Your task to perform on an android device: open a new tab in the chrome app Image 0: 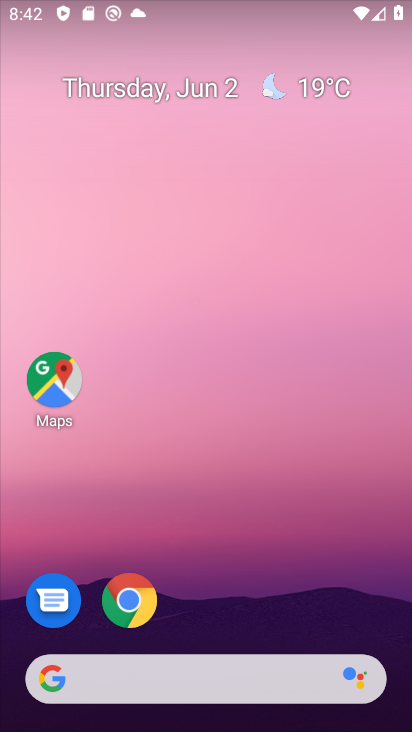
Step 0: click (111, 611)
Your task to perform on an android device: open a new tab in the chrome app Image 1: 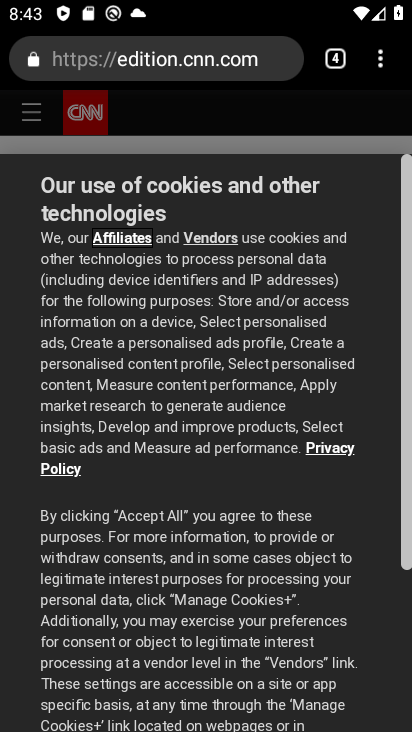
Step 1: click (335, 55)
Your task to perform on an android device: open a new tab in the chrome app Image 2: 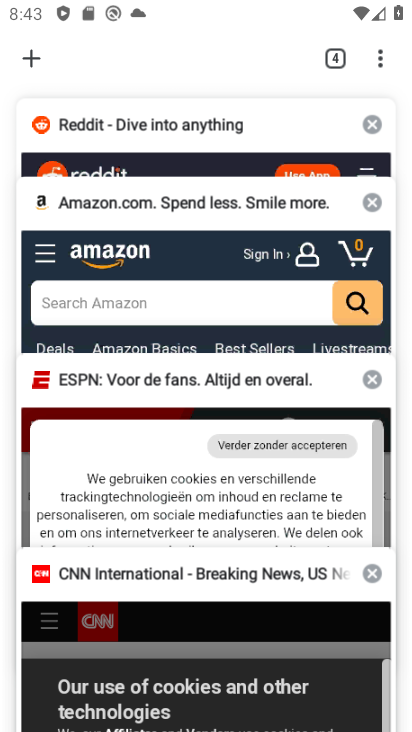
Step 2: click (29, 50)
Your task to perform on an android device: open a new tab in the chrome app Image 3: 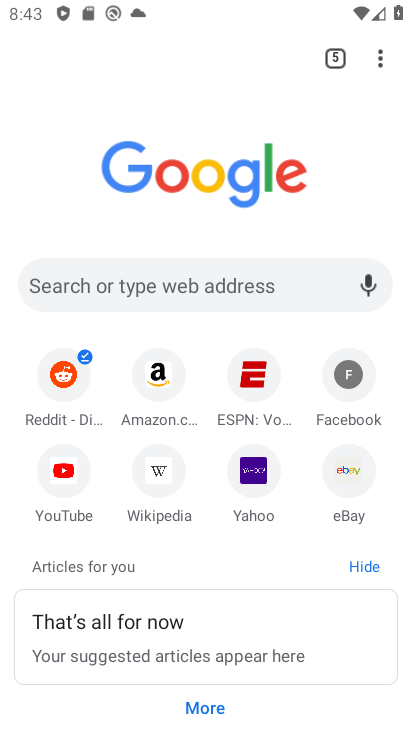
Step 3: task complete